Your task to perform on an android device: Clear all items from cart on ebay. Image 0: 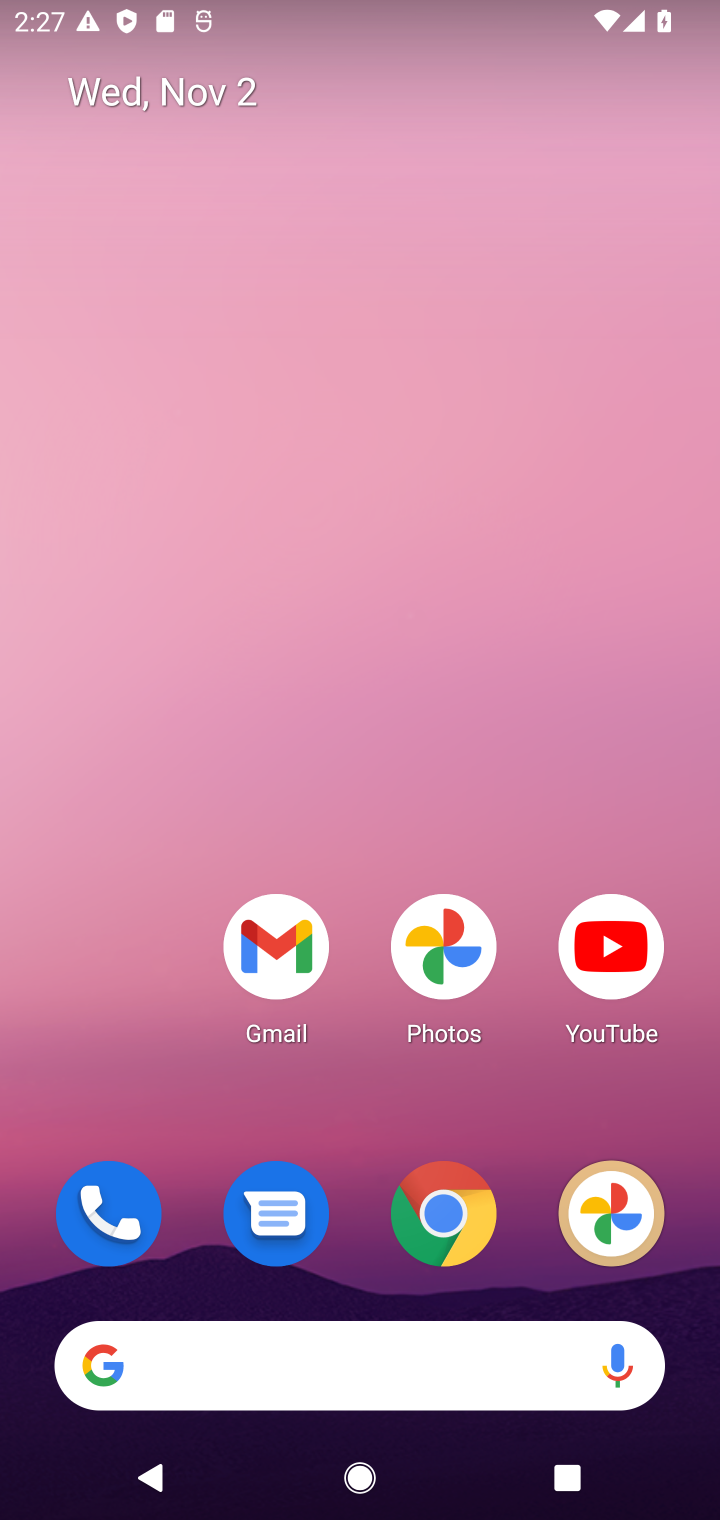
Step 0: click (445, 1206)
Your task to perform on an android device: Clear all items from cart on ebay. Image 1: 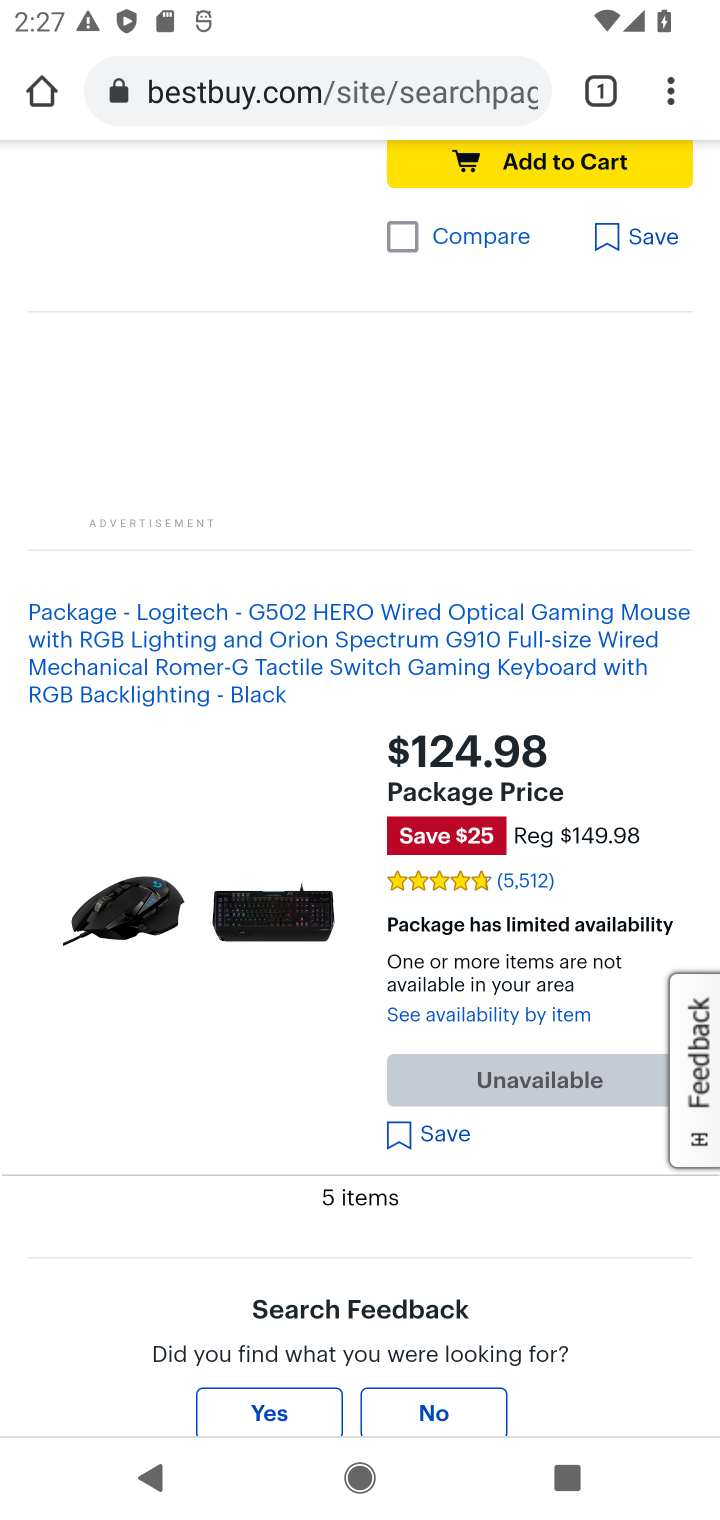
Step 1: click (406, 95)
Your task to perform on an android device: Clear all items from cart on ebay. Image 2: 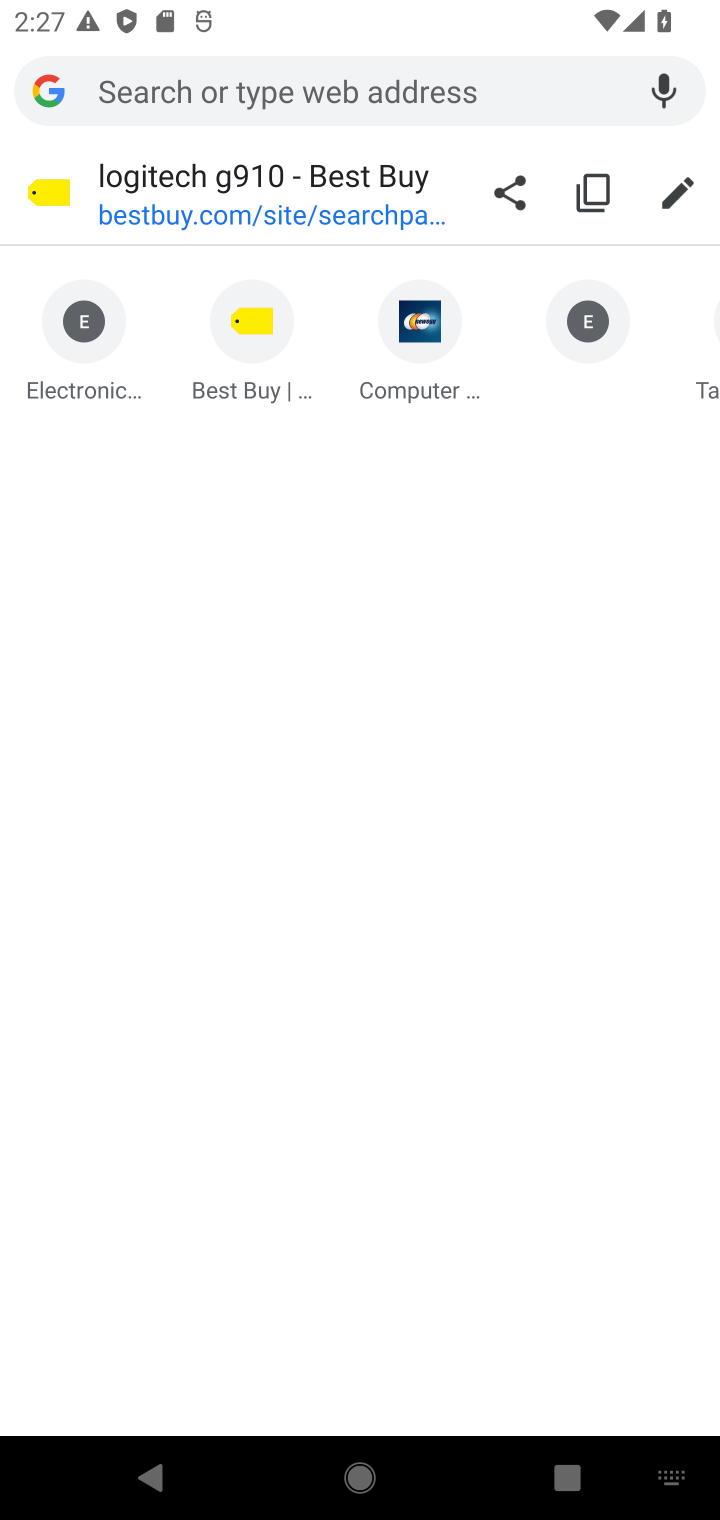
Step 2: type "ebay"
Your task to perform on an android device: Clear all items from cart on ebay. Image 3: 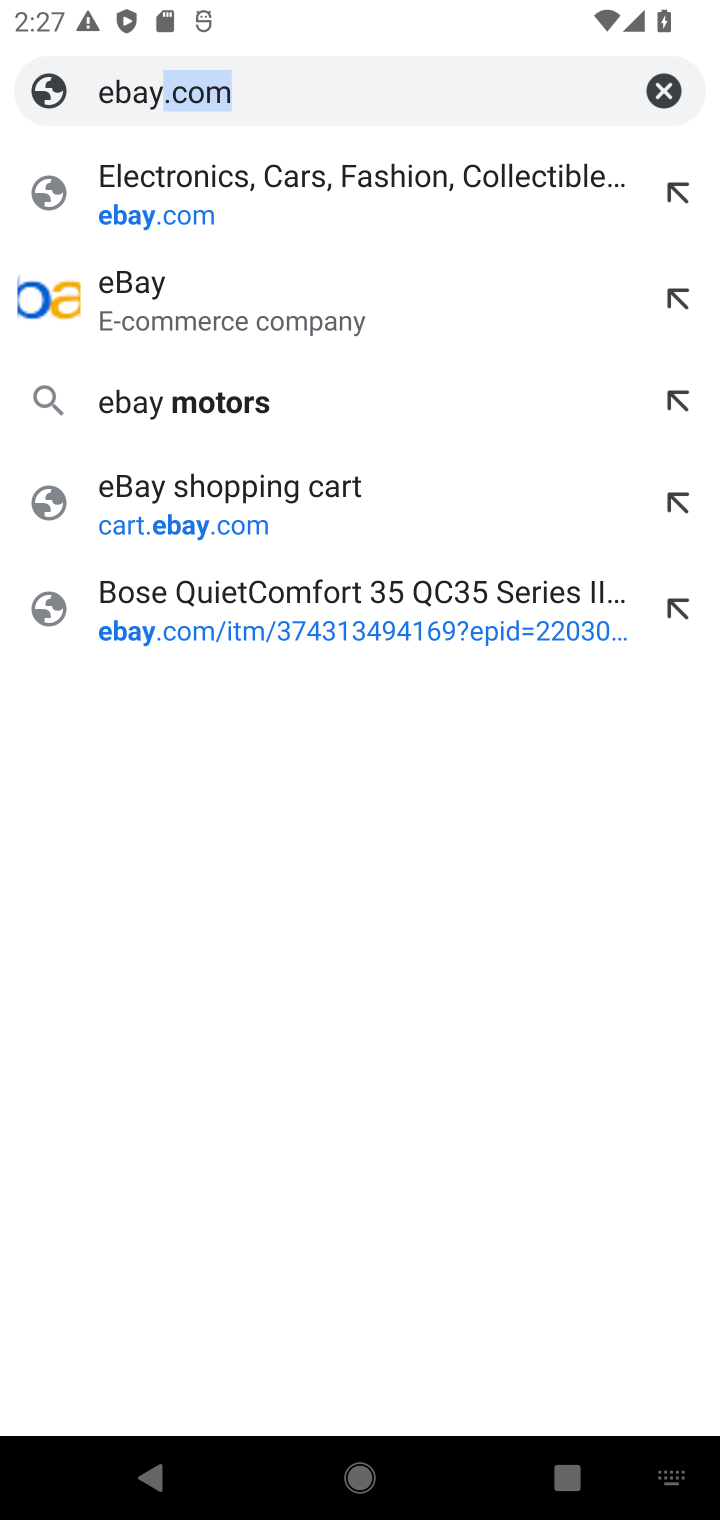
Step 3: click (481, 178)
Your task to perform on an android device: Clear all items from cart on ebay. Image 4: 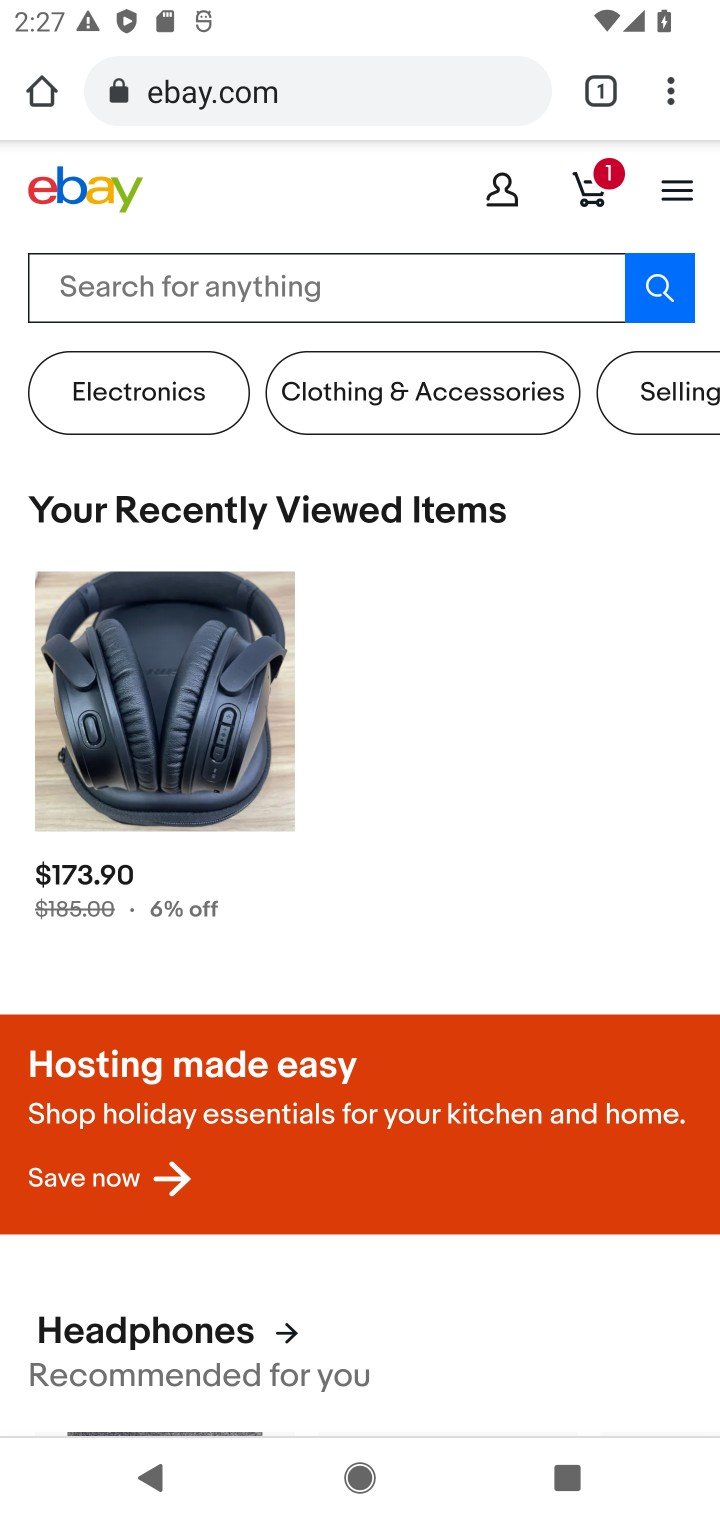
Step 4: click (589, 185)
Your task to perform on an android device: Clear all items from cart on ebay. Image 5: 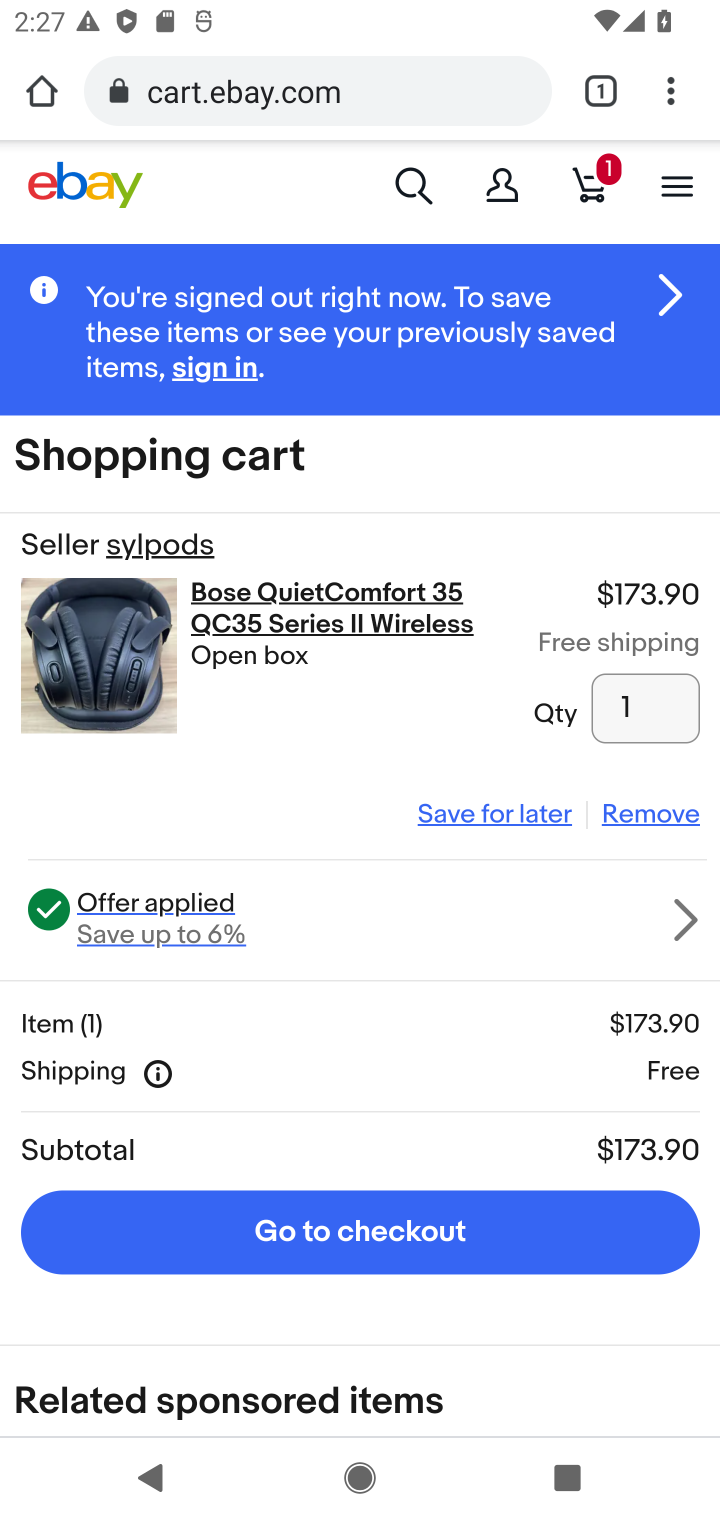
Step 5: click (622, 812)
Your task to perform on an android device: Clear all items from cart on ebay. Image 6: 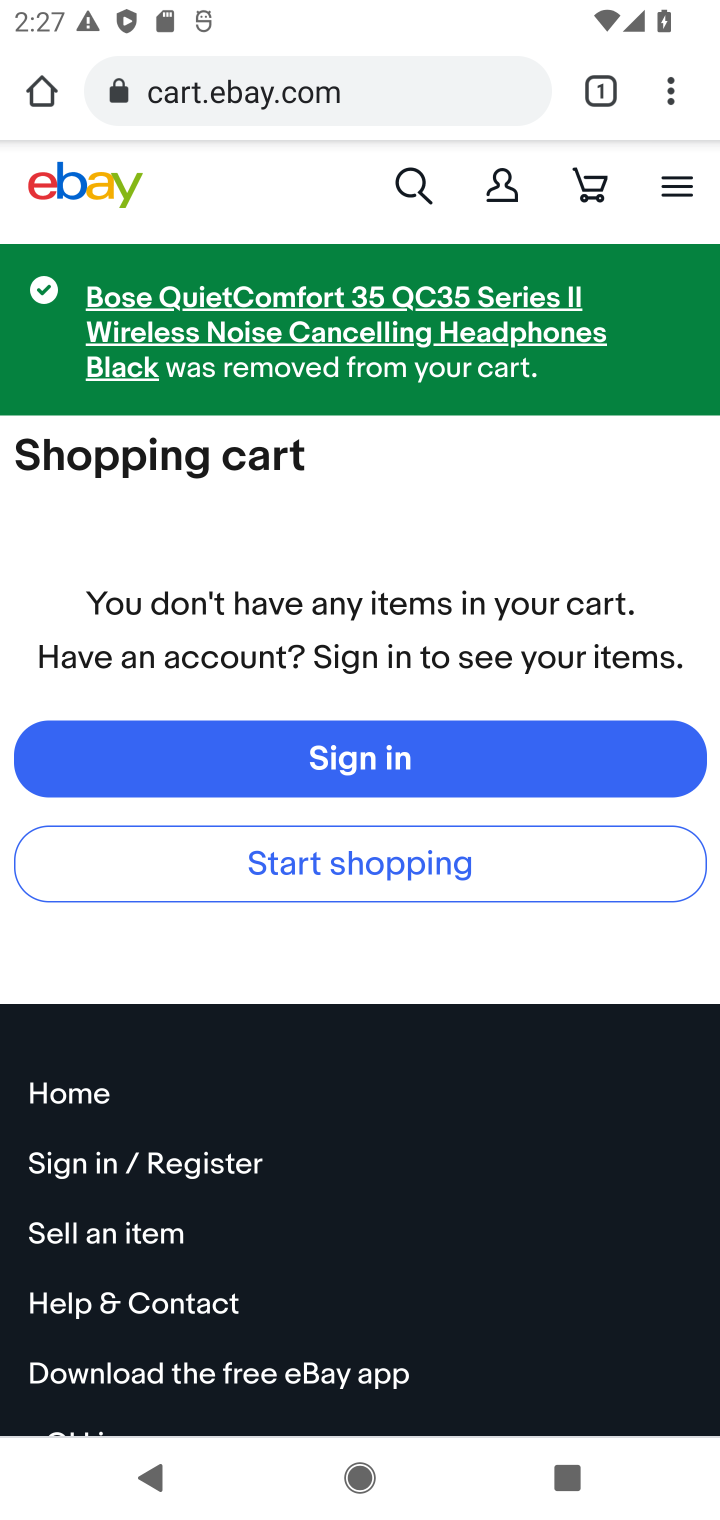
Step 6: task complete